Your task to perform on an android device: Open Android settings Image 0: 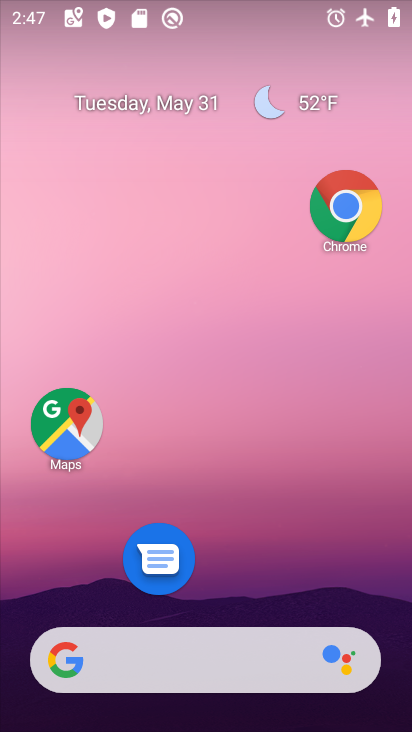
Step 0: drag from (313, 587) to (216, 143)
Your task to perform on an android device: Open Android settings Image 1: 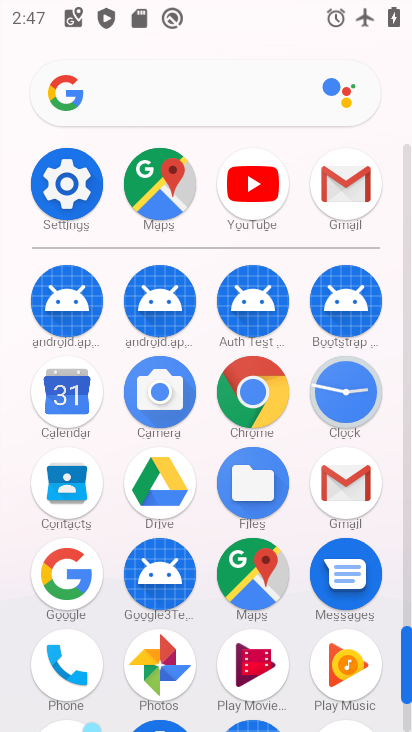
Step 1: drag from (218, 272) to (218, 84)
Your task to perform on an android device: Open Android settings Image 2: 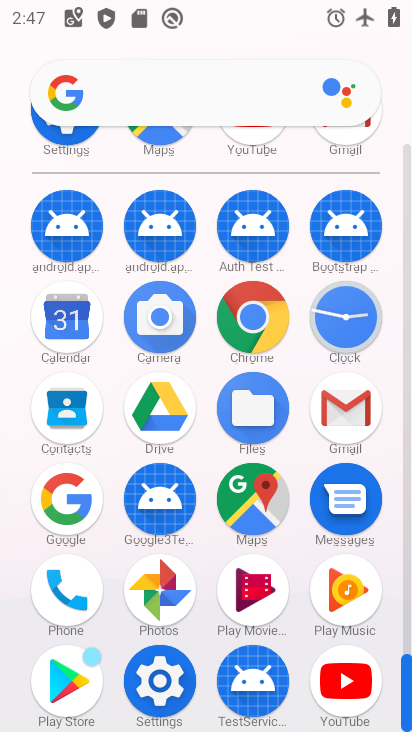
Step 2: click (189, 691)
Your task to perform on an android device: Open Android settings Image 3: 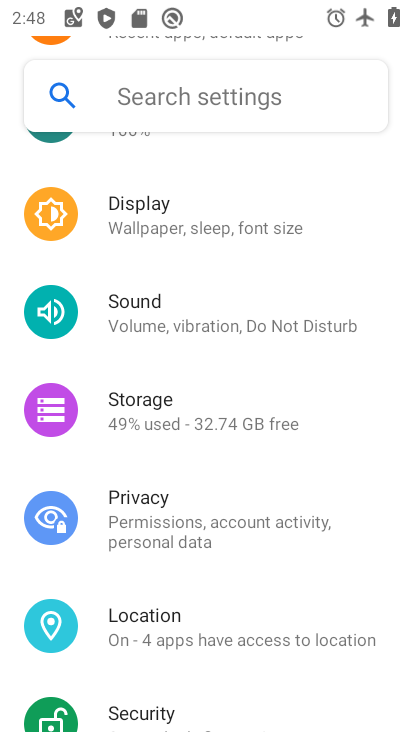
Step 3: task complete